Your task to perform on an android device: add a label to a message in the gmail app Image 0: 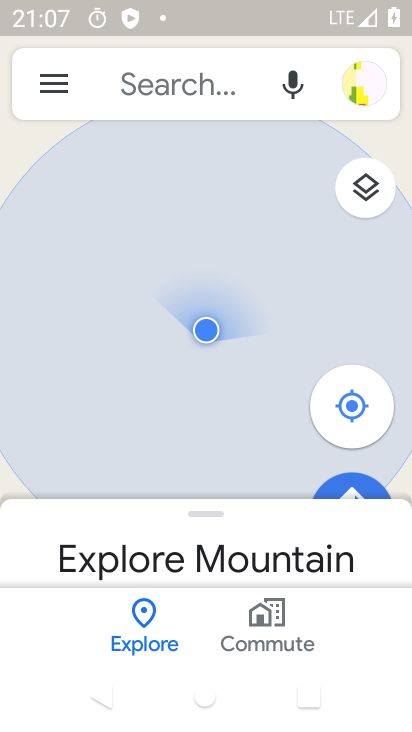
Step 0: press home button
Your task to perform on an android device: add a label to a message in the gmail app Image 1: 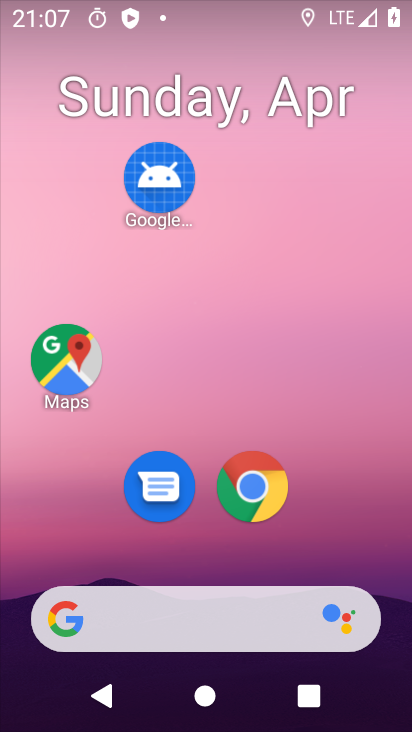
Step 1: drag from (342, 508) to (342, 172)
Your task to perform on an android device: add a label to a message in the gmail app Image 2: 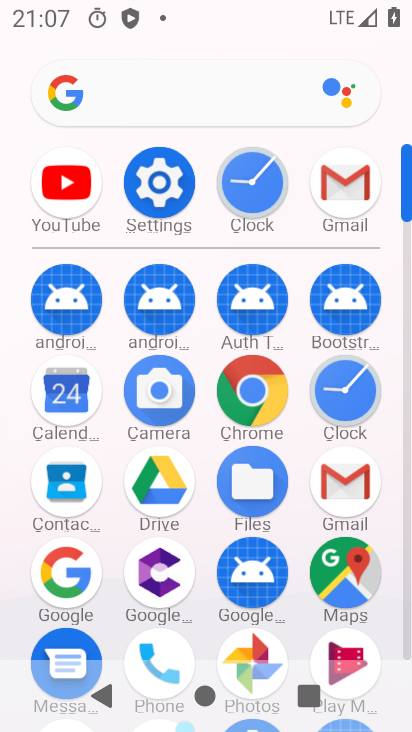
Step 2: click (344, 188)
Your task to perform on an android device: add a label to a message in the gmail app Image 3: 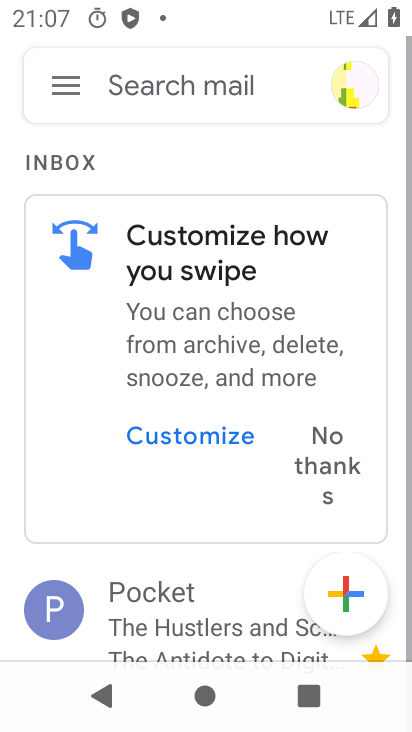
Step 3: drag from (195, 537) to (221, 283)
Your task to perform on an android device: add a label to a message in the gmail app Image 4: 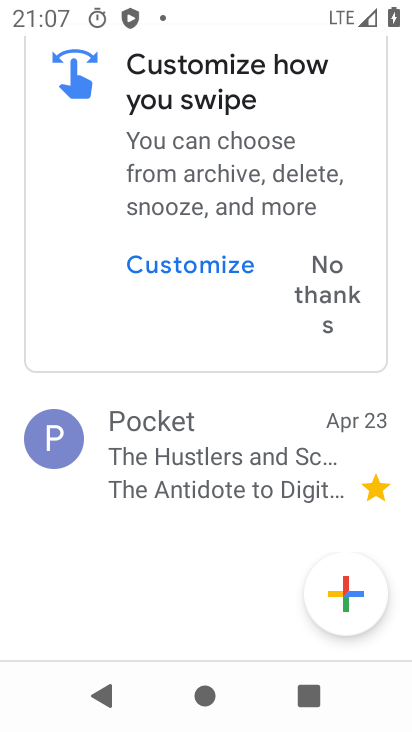
Step 4: click (112, 432)
Your task to perform on an android device: add a label to a message in the gmail app Image 5: 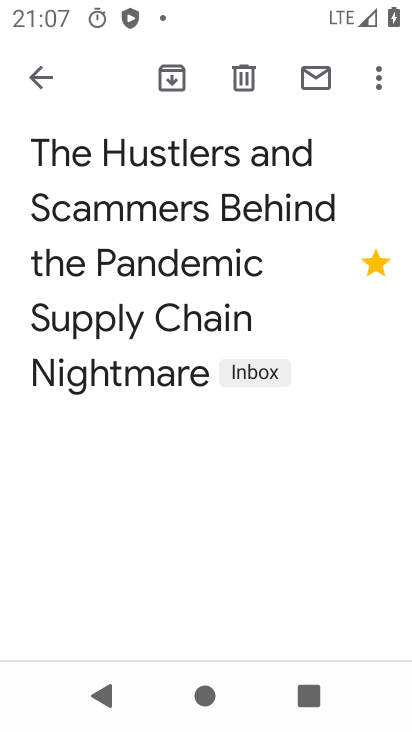
Step 5: click (378, 81)
Your task to perform on an android device: add a label to a message in the gmail app Image 6: 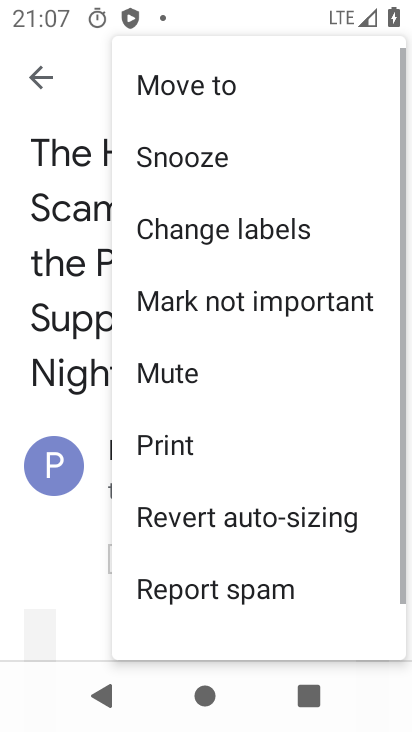
Step 6: click (184, 233)
Your task to perform on an android device: add a label to a message in the gmail app Image 7: 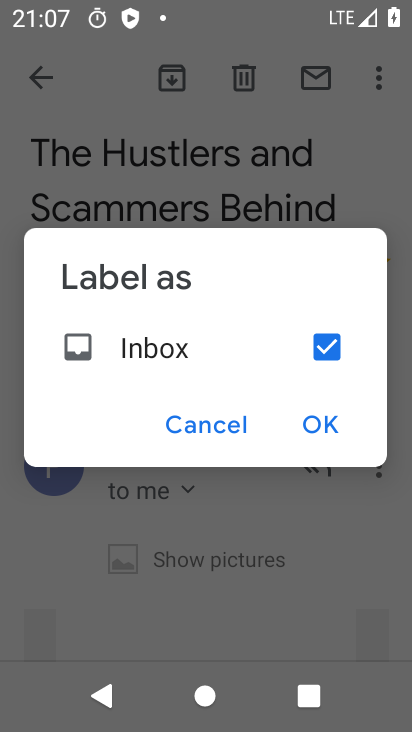
Step 7: click (321, 427)
Your task to perform on an android device: add a label to a message in the gmail app Image 8: 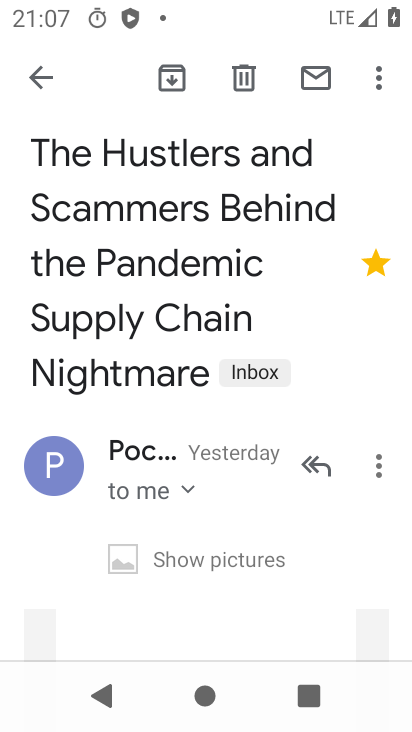
Step 8: task complete